Your task to perform on an android device: Open CNN.com Image 0: 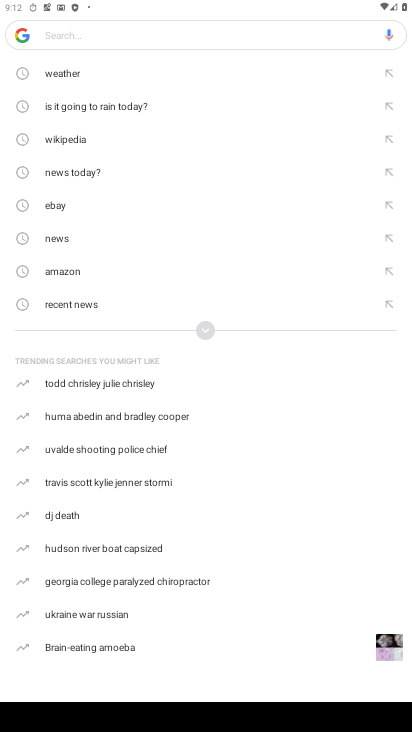
Step 0: press home button
Your task to perform on an android device: Open CNN.com Image 1: 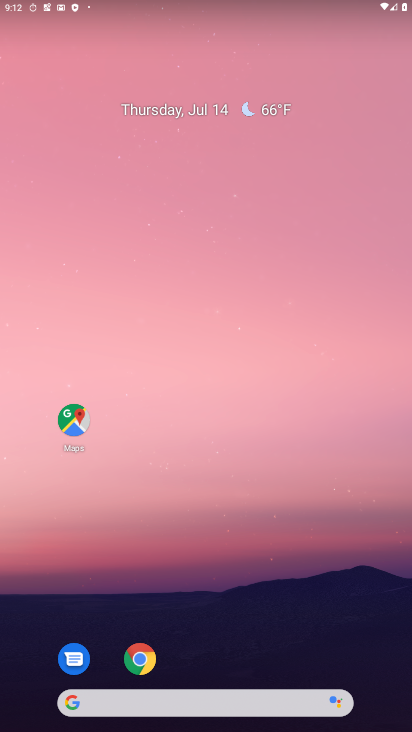
Step 1: click (70, 702)
Your task to perform on an android device: Open CNN.com Image 2: 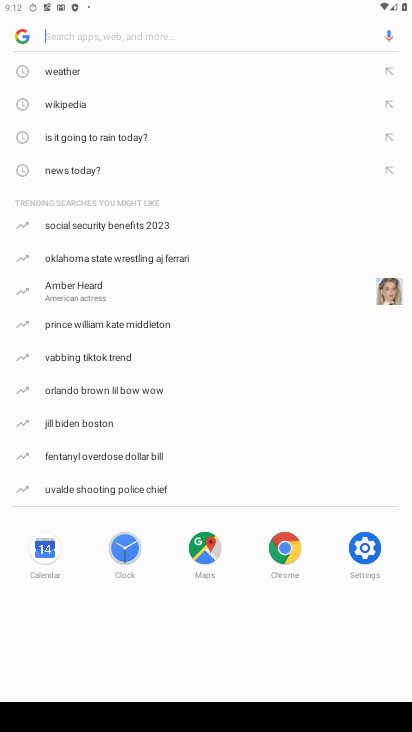
Step 2: type " CNN.com"
Your task to perform on an android device: Open CNN.com Image 3: 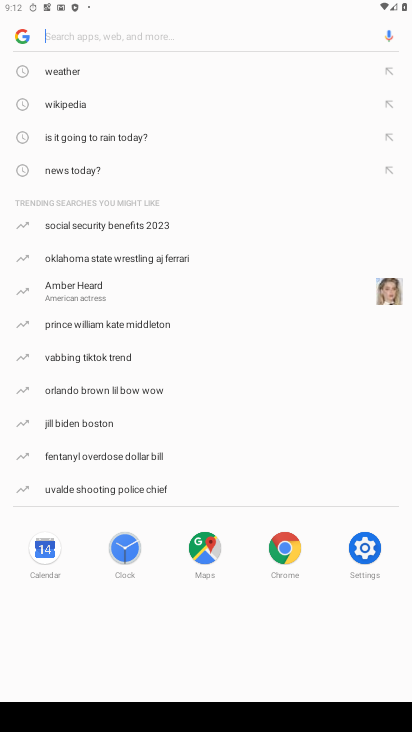
Step 3: click (69, 34)
Your task to perform on an android device: Open CNN.com Image 4: 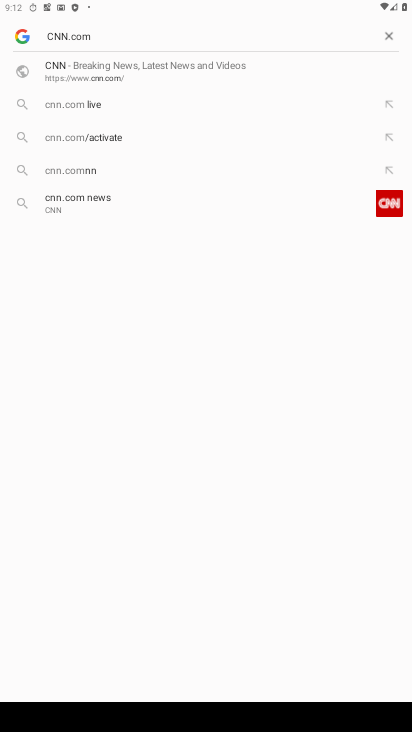
Step 4: click (376, 201)
Your task to perform on an android device: Open CNN.com Image 5: 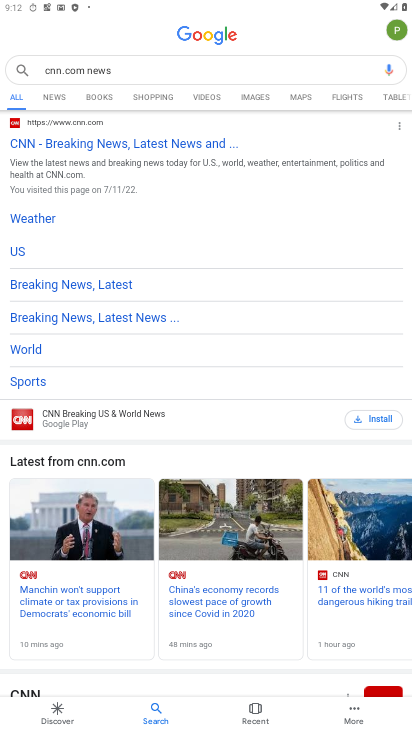
Step 5: click (215, 144)
Your task to perform on an android device: Open CNN.com Image 6: 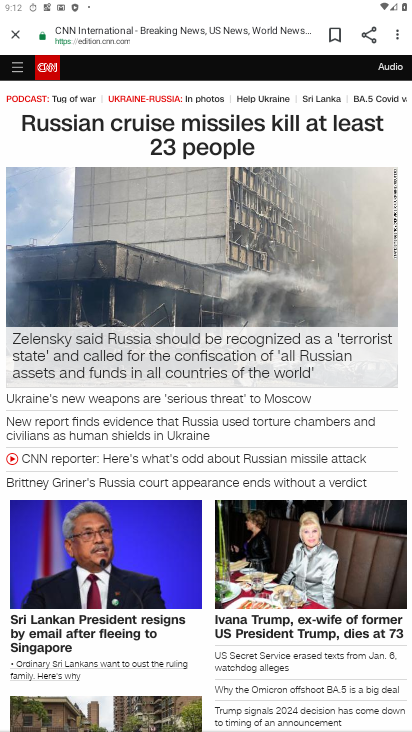
Step 6: task complete